Your task to perform on an android device: Go to CNN.com Image 0: 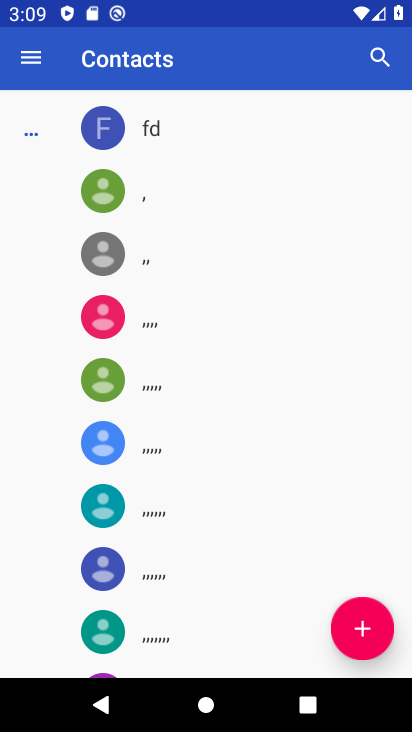
Step 0: press home button
Your task to perform on an android device: Go to CNN.com Image 1: 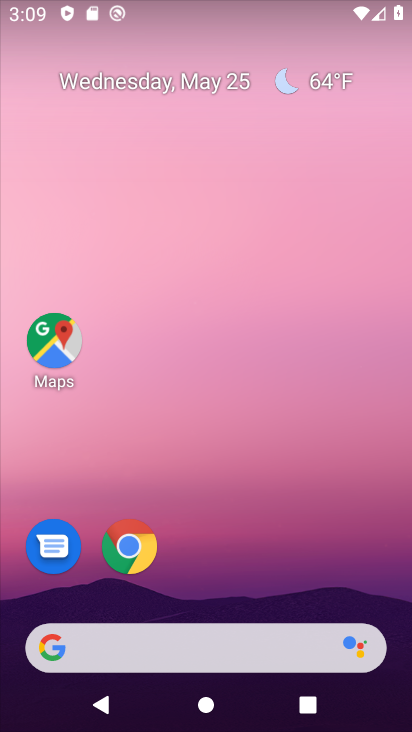
Step 1: click (121, 561)
Your task to perform on an android device: Go to CNN.com Image 2: 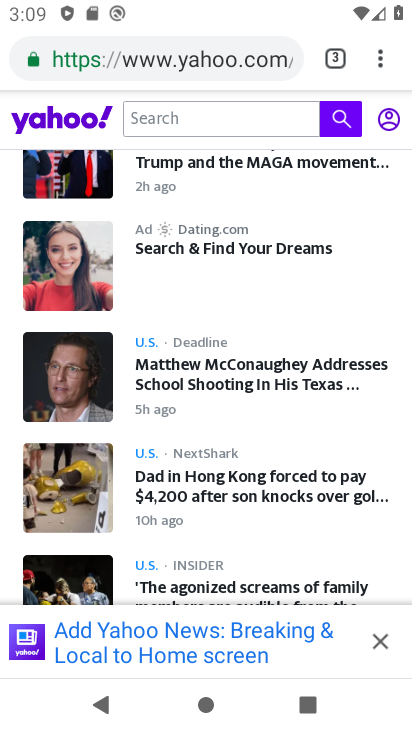
Step 2: click (334, 61)
Your task to perform on an android device: Go to CNN.com Image 3: 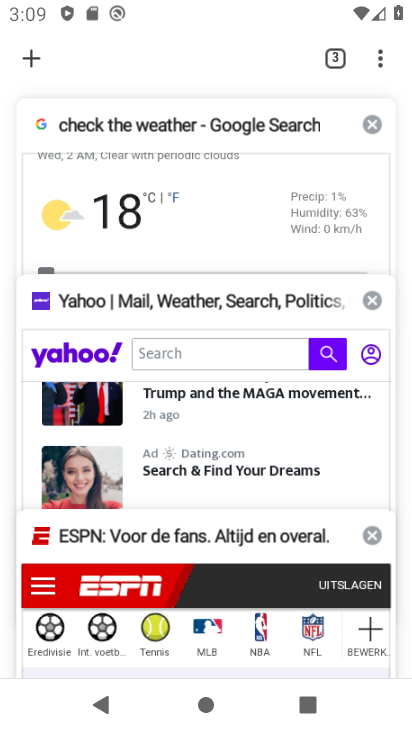
Step 3: click (34, 59)
Your task to perform on an android device: Go to CNN.com Image 4: 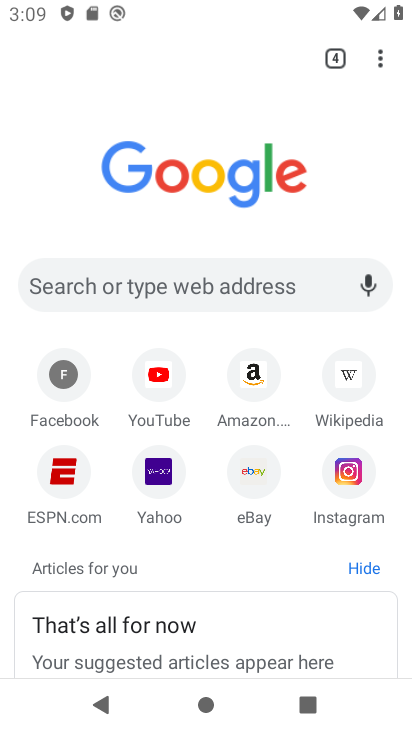
Step 4: click (158, 280)
Your task to perform on an android device: Go to CNN.com Image 5: 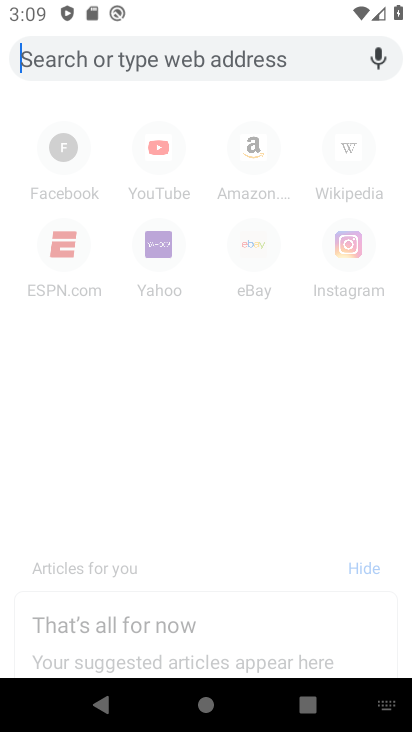
Step 5: type "cnn.com"
Your task to perform on an android device: Go to CNN.com Image 6: 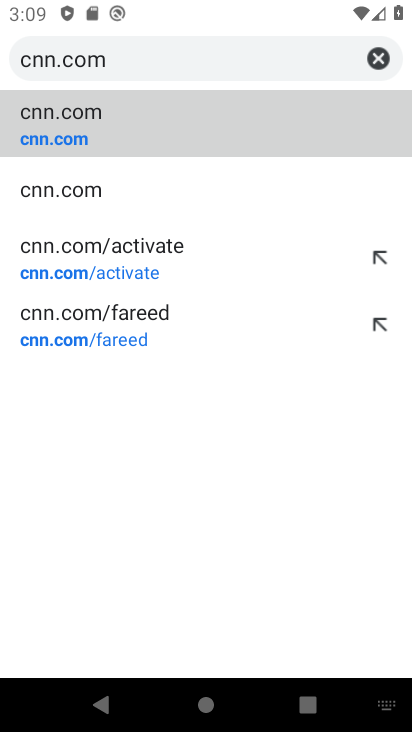
Step 6: click (161, 151)
Your task to perform on an android device: Go to CNN.com Image 7: 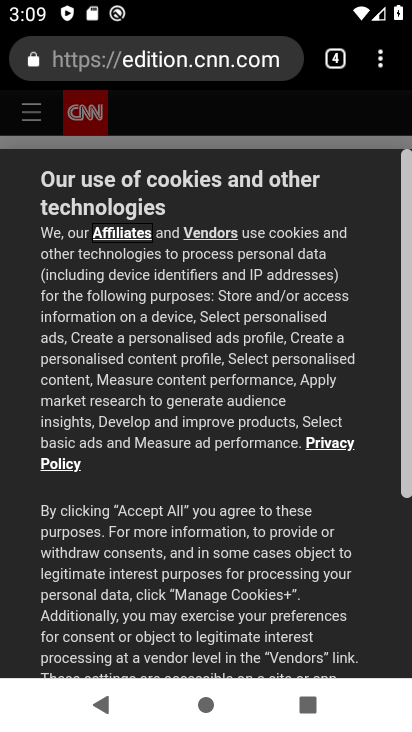
Step 7: task complete